Your task to perform on an android device: Go to location settings Image 0: 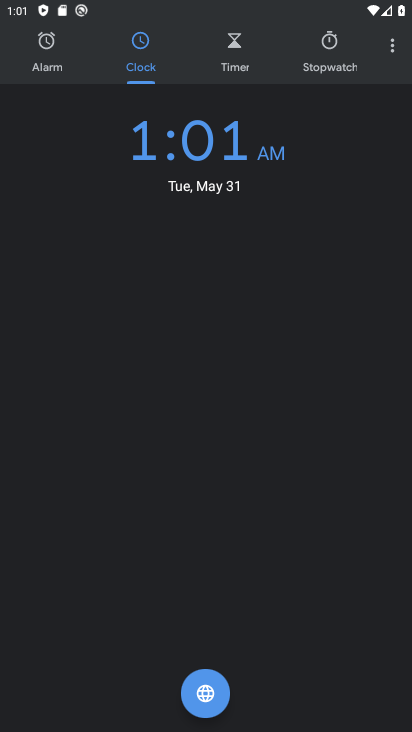
Step 0: press home button
Your task to perform on an android device: Go to location settings Image 1: 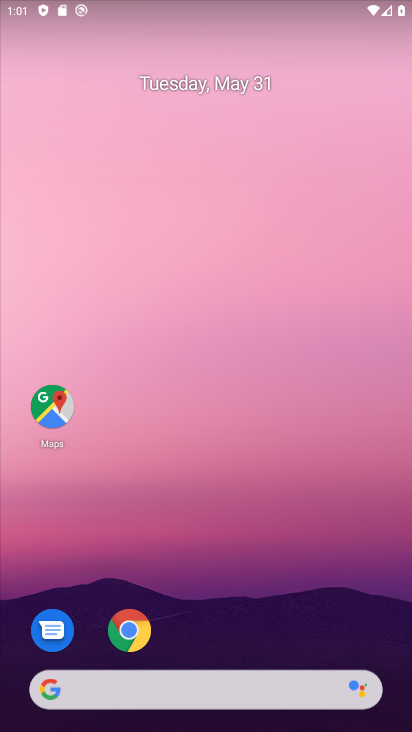
Step 1: drag from (194, 637) to (183, 202)
Your task to perform on an android device: Go to location settings Image 2: 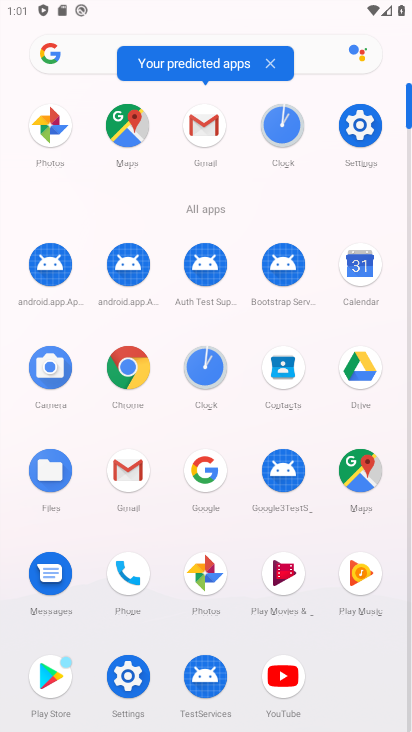
Step 2: click (360, 123)
Your task to perform on an android device: Go to location settings Image 3: 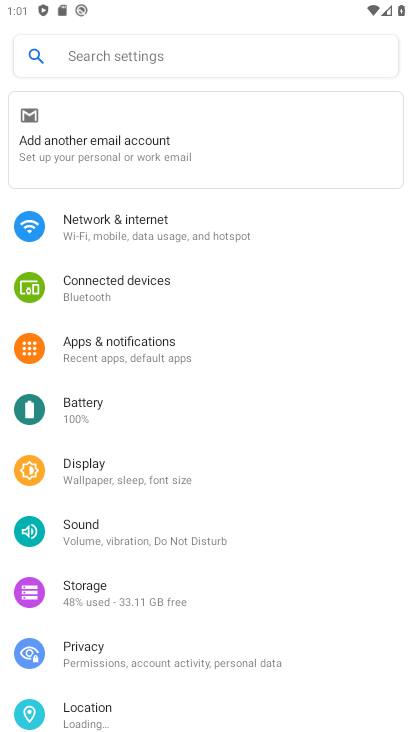
Step 3: drag from (127, 622) to (126, 481)
Your task to perform on an android device: Go to location settings Image 4: 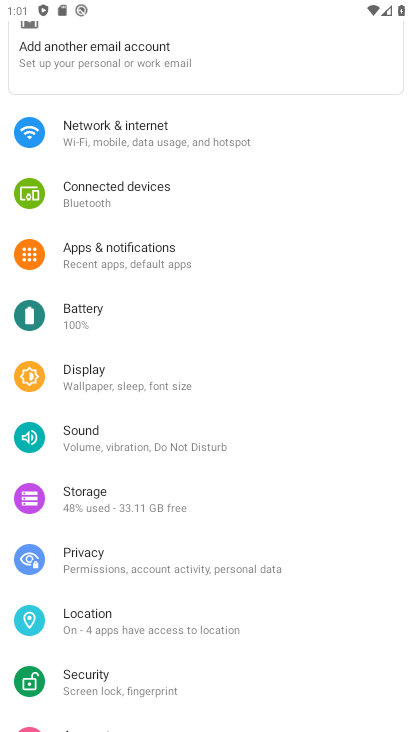
Step 4: click (105, 617)
Your task to perform on an android device: Go to location settings Image 5: 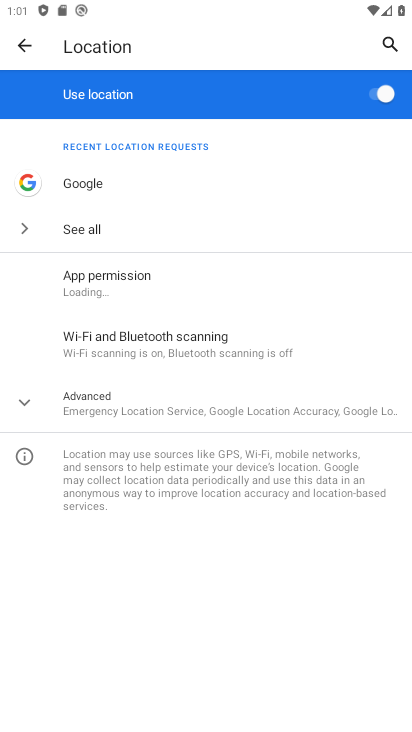
Step 5: task complete